Your task to perform on an android device: Go to wifi settings Image 0: 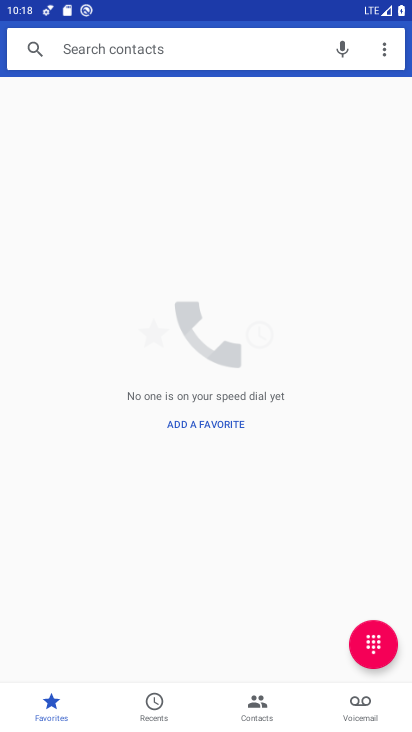
Step 0: press home button
Your task to perform on an android device: Go to wifi settings Image 1: 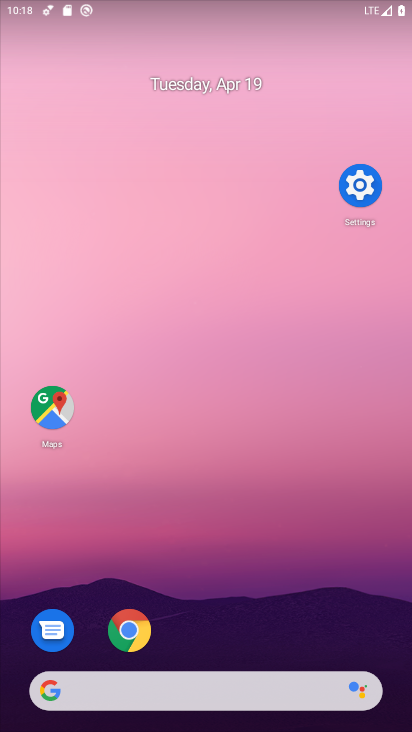
Step 1: drag from (217, 514) to (218, 116)
Your task to perform on an android device: Go to wifi settings Image 2: 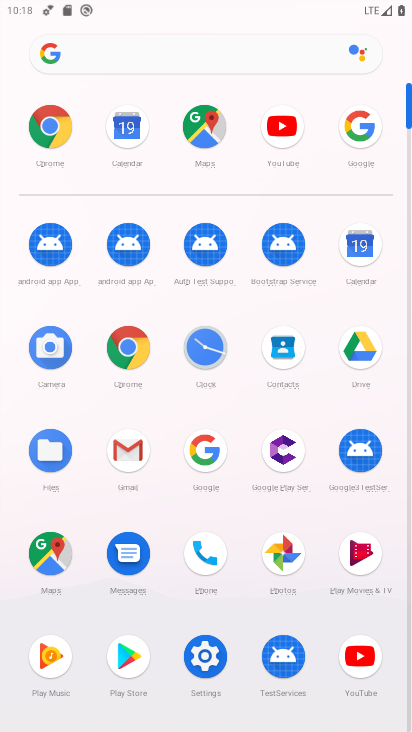
Step 2: click (214, 668)
Your task to perform on an android device: Go to wifi settings Image 3: 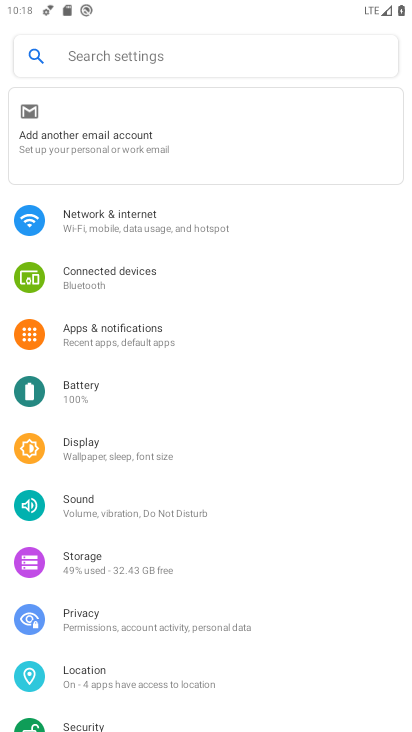
Step 3: click (160, 230)
Your task to perform on an android device: Go to wifi settings Image 4: 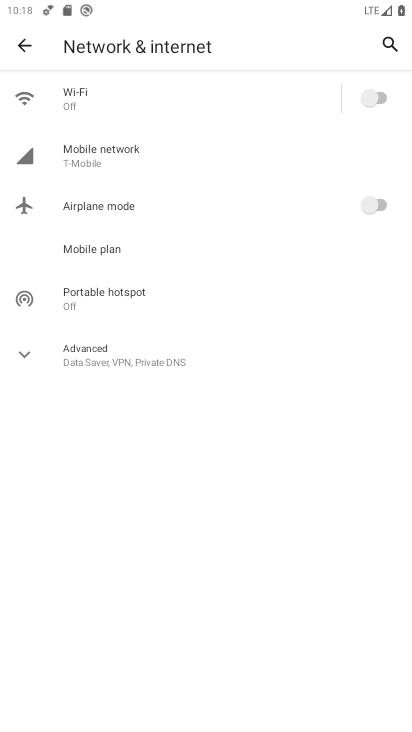
Step 4: click (140, 108)
Your task to perform on an android device: Go to wifi settings Image 5: 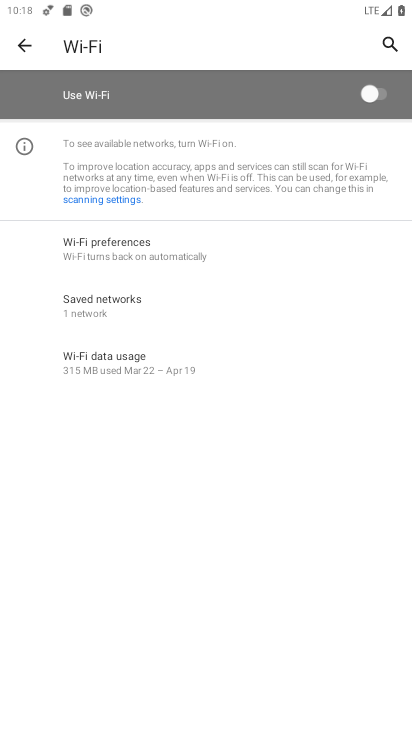
Step 5: task complete